Your task to perform on an android device: Search for the new Nintendo switch on Best Buy Image 0: 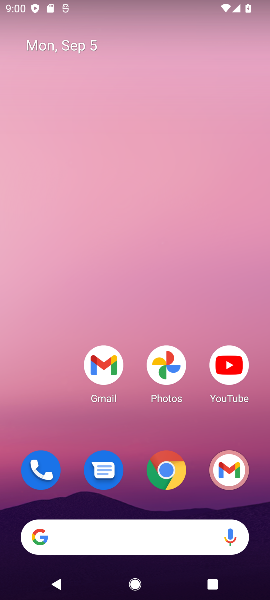
Step 0: click (141, 534)
Your task to perform on an android device: Search for the new Nintendo switch on Best Buy Image 1: 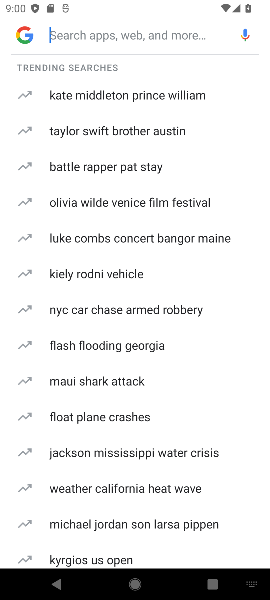
Step 1: type "best buy"
Your task to perform on an android device: Search for the new Nintendo switch on Best Buy Image 2: 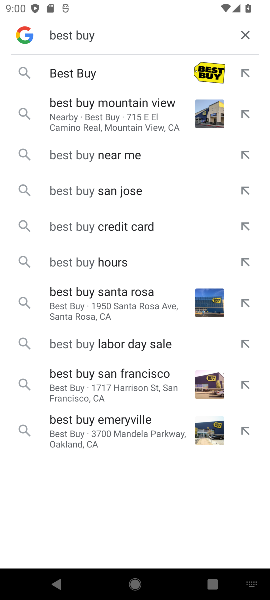
Step 2: click (83, 68)
Your task to perform on an android device: Search for the new Nintendo switch on Best Buy Image 3: 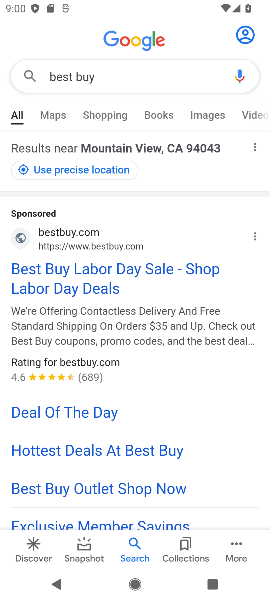
Step 3: click (54, 266)
Your task to perform on an android device: Search for the new Nintendo switch on Best Buy Image 4: 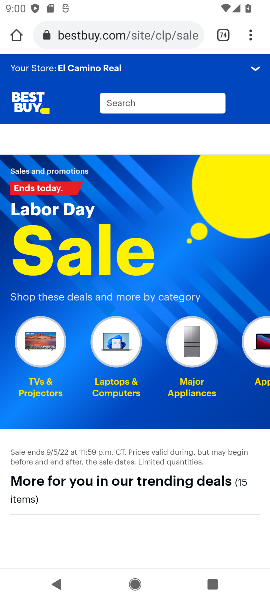
Step 4: click (124, 102)
Your task to perform on an android device: Search for the new Nintendo switch on Best Buy Image 5: 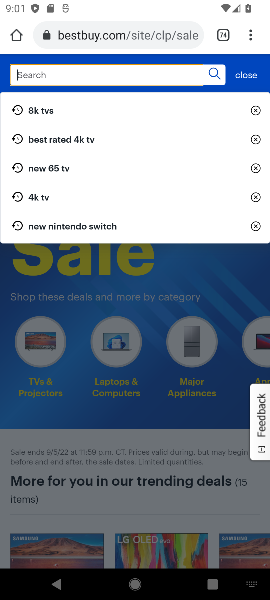
Step 5: type "new nintendo switch"
Your task to perform on an android device: Search for the new Nintendo switch on Best Buy Image 6: 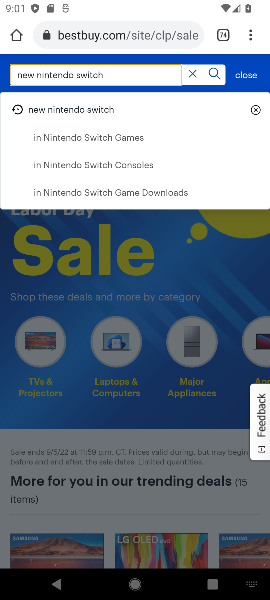
Step 6: click (215, 72)
Your task to perform on an android device: Search for the new Nintendo switch on Best Buy Image 7: 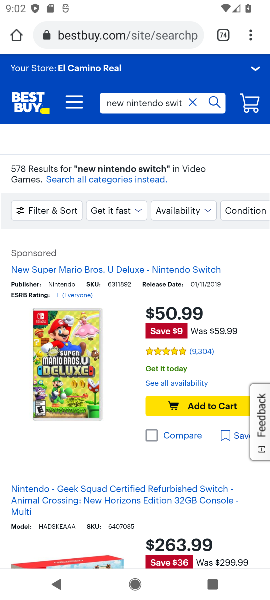
Step 7: task complete